Your task to perform on an android device: Search for sushi restaurants on Maps Image 0: 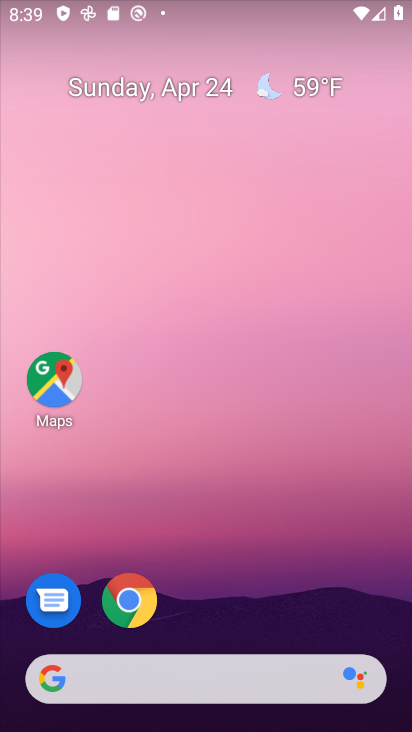
Step 0: drag from (219, 718) to (232, 142)
Your task to perform on an android device: Search for sushi restaurants on Maps Image 1: 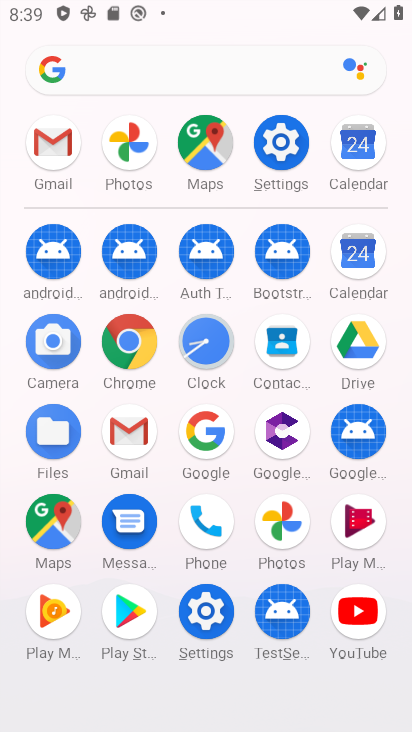
Step 1: click (48, 523)
Your task to perform on an android device: Search for sushi restaurants on Maps Image 2: 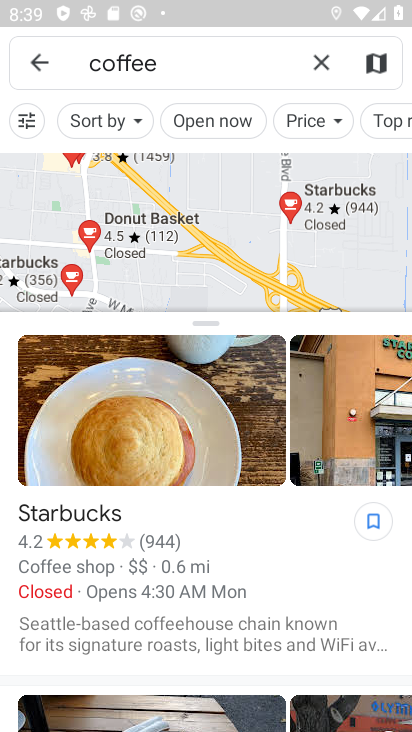
Step 2: click (318, 61)
Your task to perform on an android device: Search for sushi restaurants on Maps Image 3: 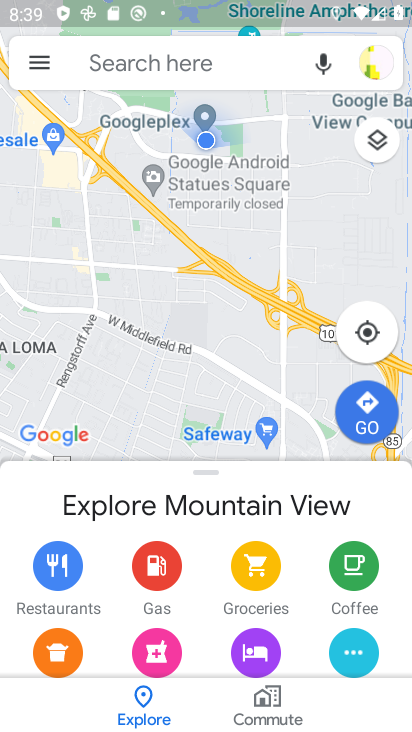
Step 3: click (213, 65)
Your task to perform on an android device: Search for sushi restaurants on Maps Image 4: 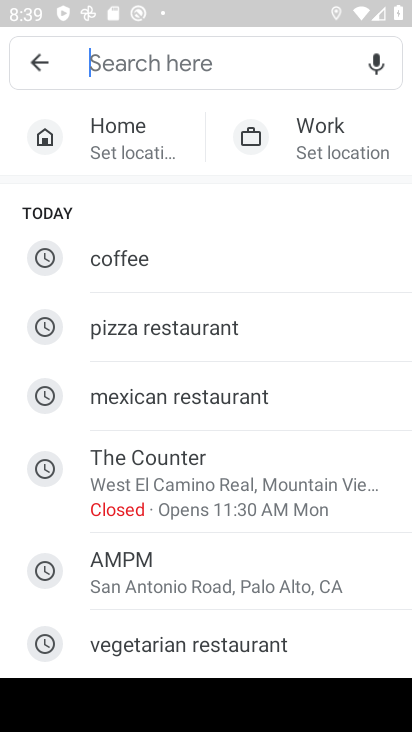
Step 4: type "sushi restaurants"
Your task to perform on an android device: Search for sushi restaurants on Maps Image 5: 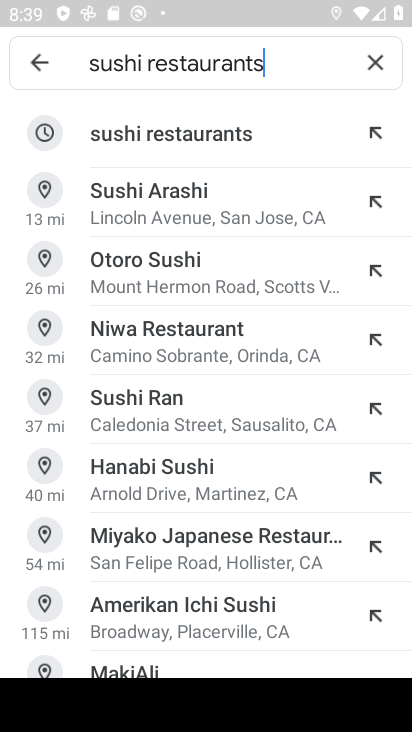
Step 5: click (145, 130)
Your task to perform on an android device: Search for sushi restaurants on Maps Image 6: 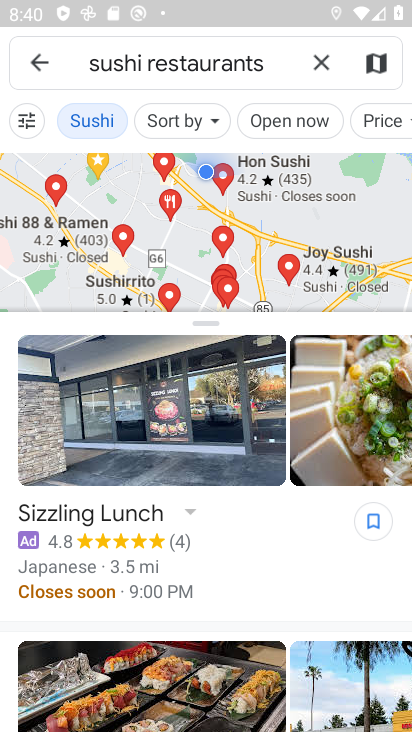
Step 6: task complete